Your task to perform on an android device: Find coffee shops on Maps Image 0: 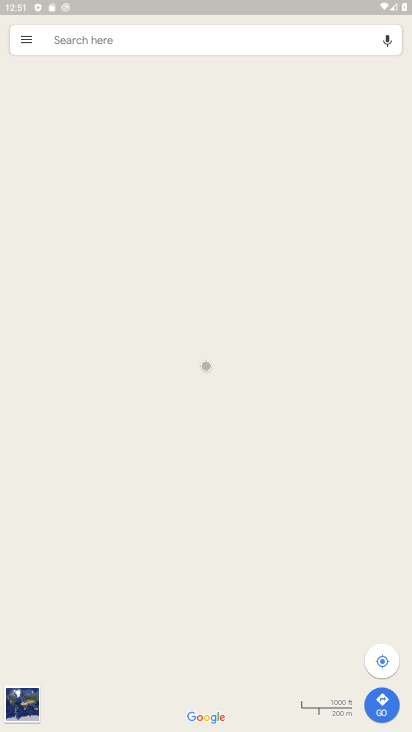
Step 0: click (235, 38)
Your task to perform on an android device: Find coffee shops on Maps Image 1: 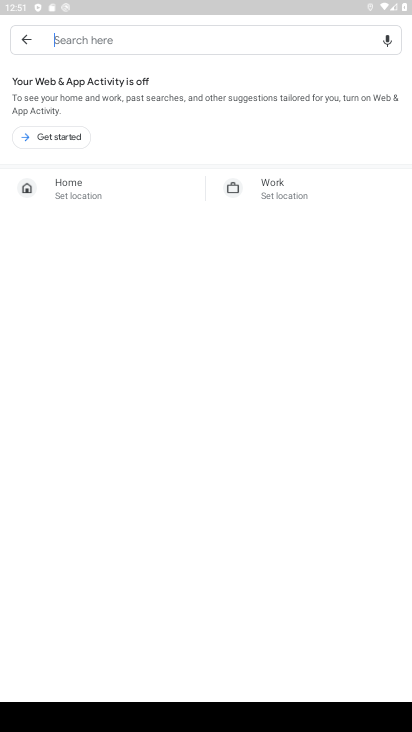
Step 1: type "coffee shops"
Your task to perform on an android device: Find coffee shops on Maps Image 2: 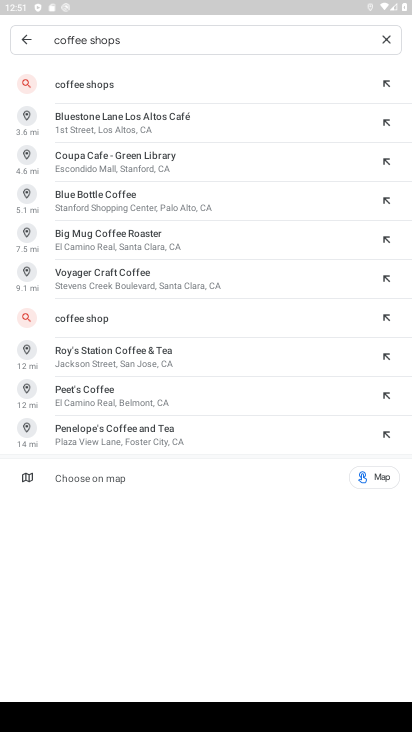
Step 2: click (108, 88)
Your task to perform on an android device: Find coffee shops on Maps Image 3: 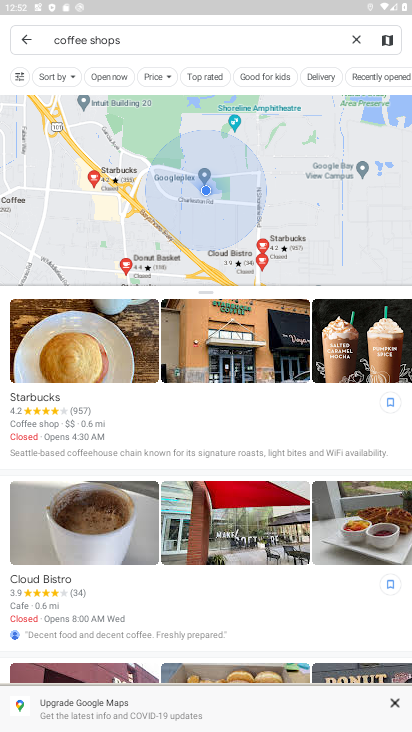
Step 3: task complete